Your task to perform on an android device: change the clock display to digital Image 0: 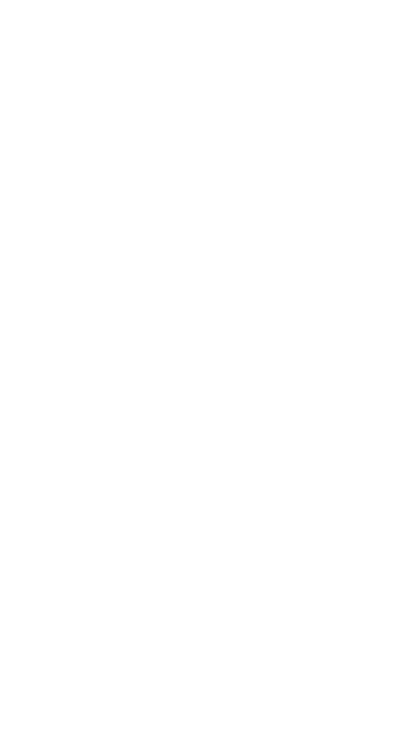
Step 0: click (258, 169)
Your task to perform on an android device: change the clock display to digital Image 1: 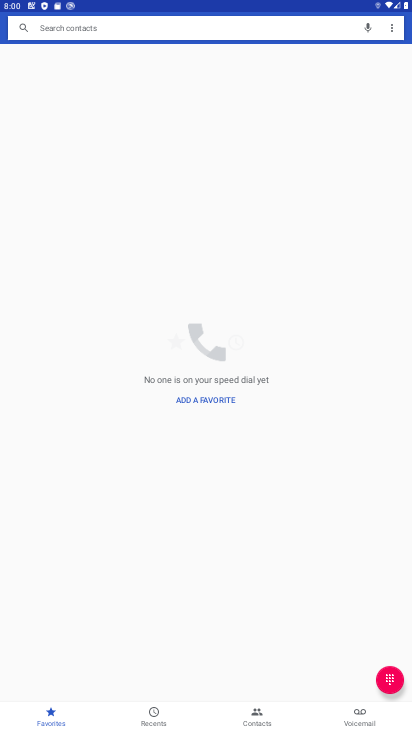
Step 1: press back button
Your task to perform on an android device: change the clock display to digital Image 2: 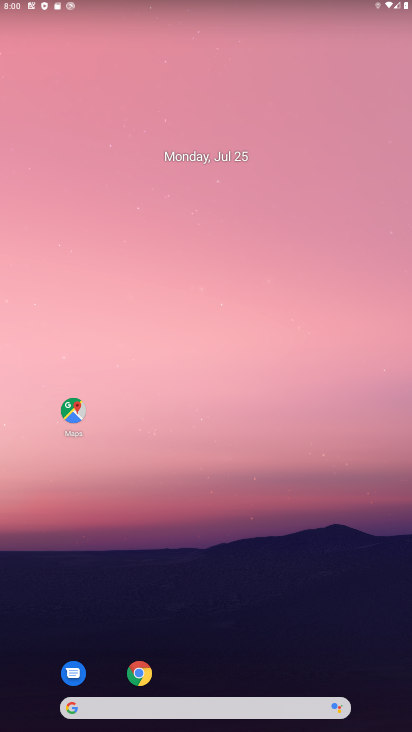
Step 2: drag from (261, 675) to (219, 362)
Your task to perform on an android device: change the clock display to digital Image 3: 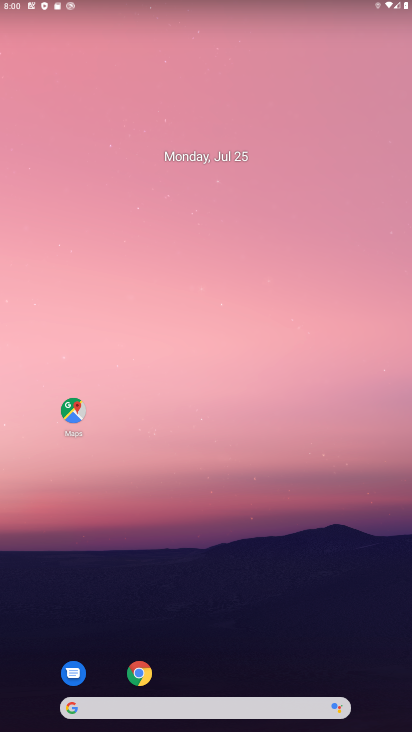
Step 3: drag from (249, 621) to (217, 237)
Your task to perform on an android device: change the clock display to digital Image 4: 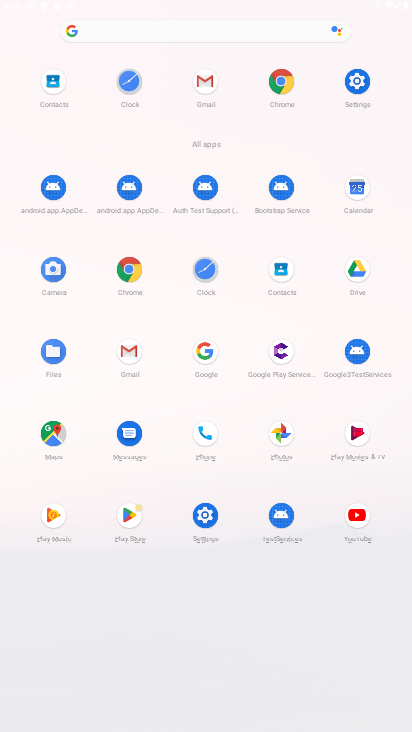
Step 4: click (209, 278)
Your task to perform on an android device: change the clock display to digital Image 5: 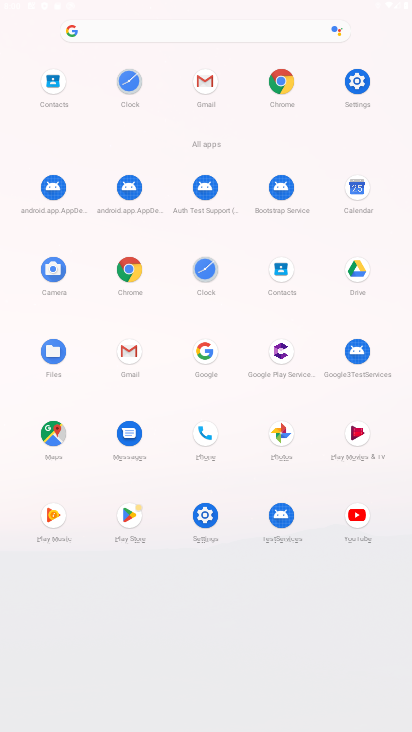
Step 5: click (209, 277)
Your task to perform on an android device: change the clock display to digital Image 6: 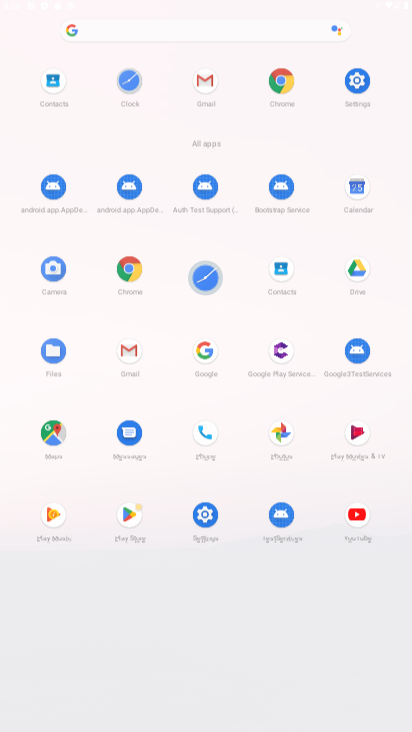
Step 6: click (215, 267)
Your task to perform on an android device: change the clock display to digital Image 7: 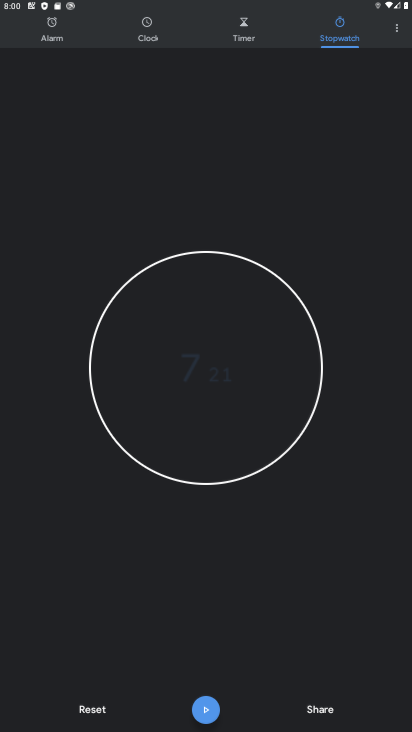
Step 7: click (213, 267)
Your task to perform on an android device: change the clock display to digital Image 8: 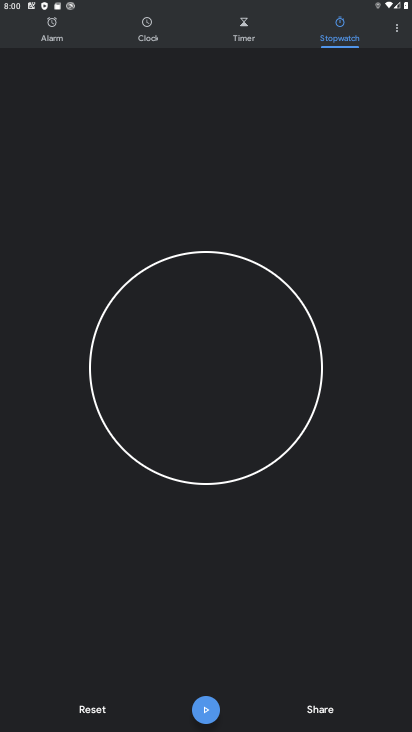
Step 8: click (397, 25)
Your task to perform on an android device: change the clock display to digital Image 9: 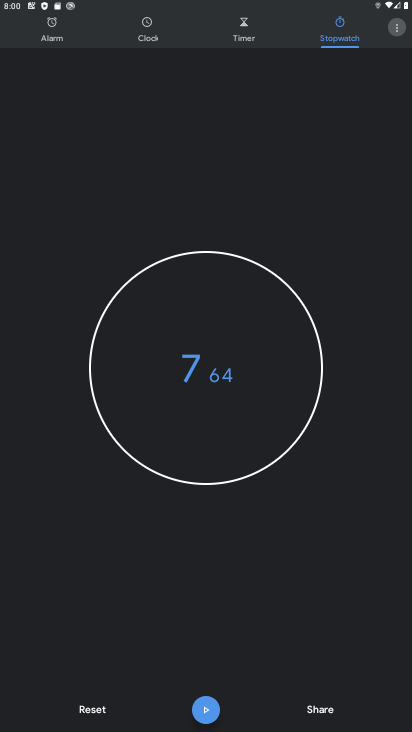
Step 9: click (400, 26)
Your task to perform on an android device: change the clock display to digital Image 10: 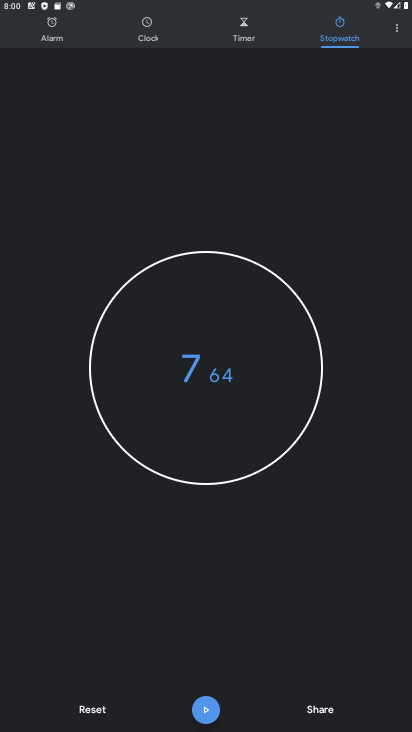
Step 10: click (400, 31)
Your task to perform on an android device: change the clock display to digital Image 11: 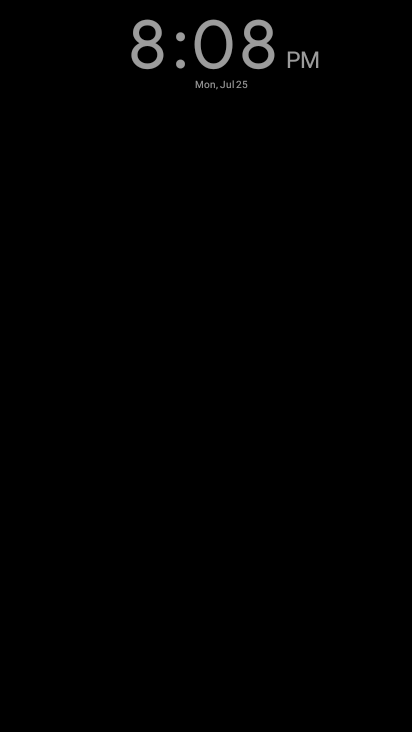
Step 11: press back button
Your task to perform on an android device: change the clock display to digital Image 12: 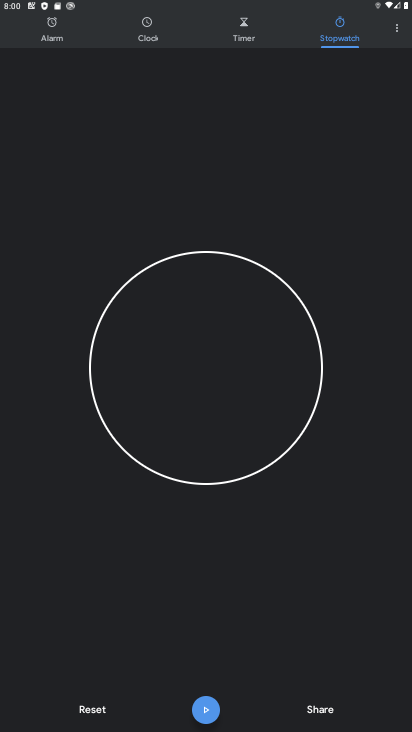
Step 12: click (401, 30)
Your task to perform on an android device: change the clock display to digital Image 13: 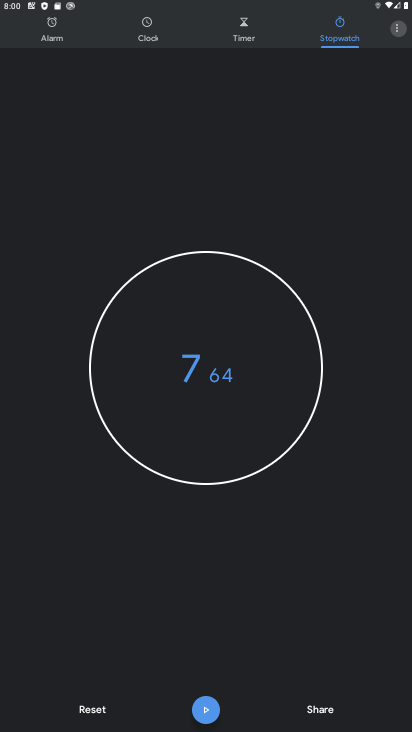
Step 13: click (401, 30)
Your task to perform on an android device: change the clock display to digital Image 14: 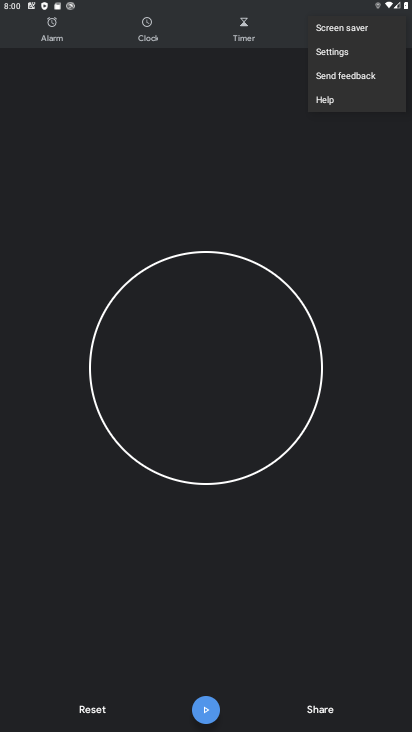
Step 14: click (337, 62)
Your task to perform on an android device: change the clock display to digital Image 15: 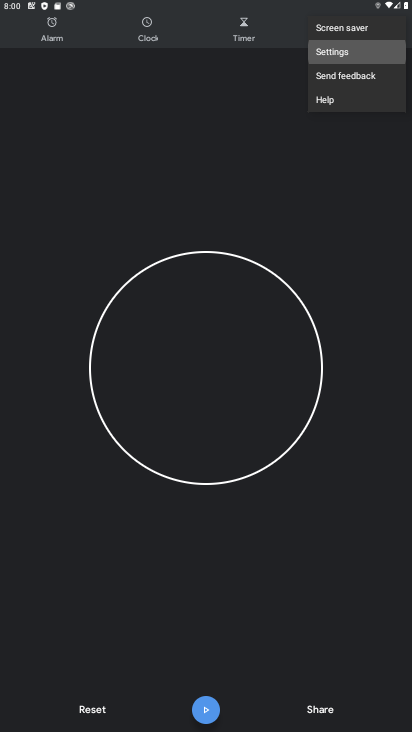
Step 15: click (337, 62)
Your task to perform on an android device: change the clock display to digital Image 16: 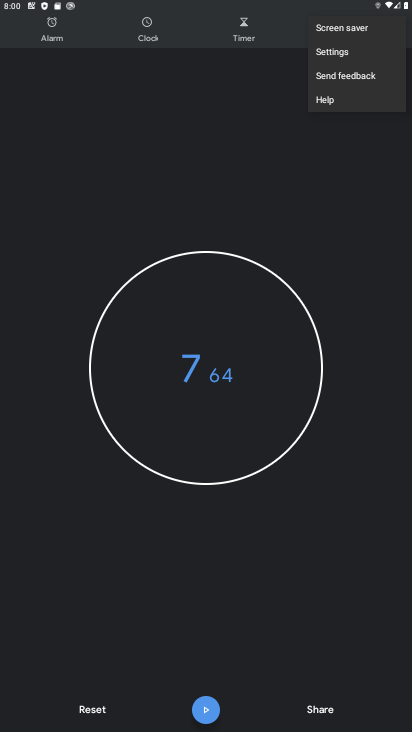
Step 16: click (340, 52)
Your task to perform on an android device: change the clock display to digital Image 17: 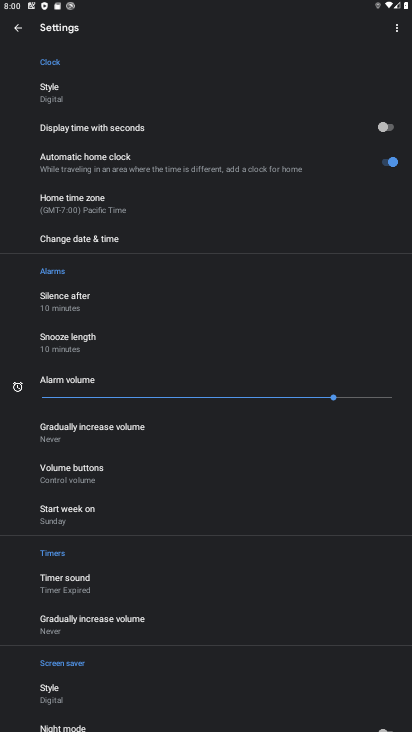
Step 17: click (54, 93)
Your task to perform on an android device: change the clock display to digital Image 18: 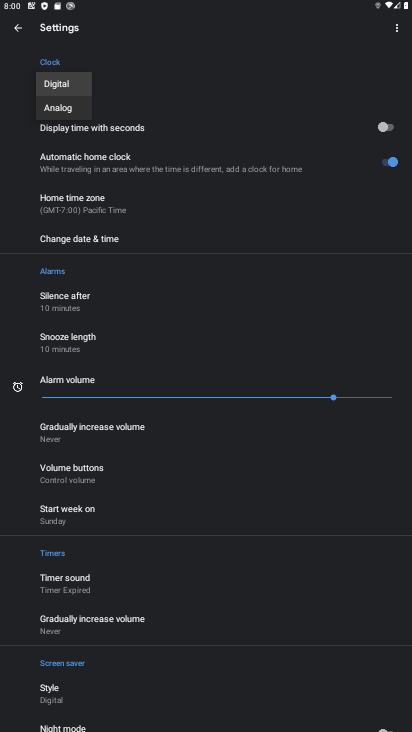
Step 18: click (53, 84)
Your task to perform on an android device: change the clock display to digital Image 19: 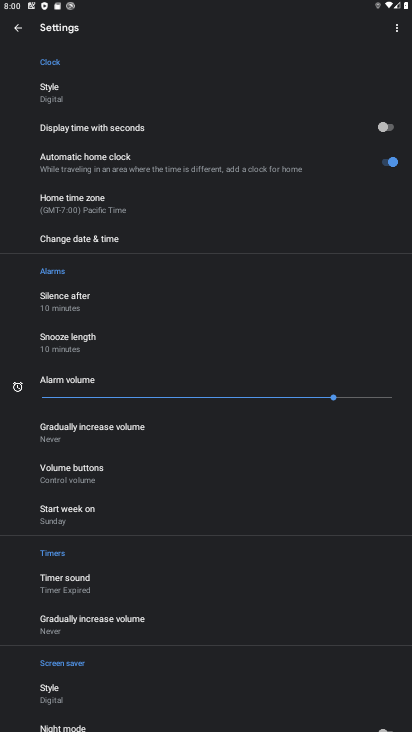
Step 19: task complete